Your task to perform on an android device: turn off priority inbox in the gmail app Image 0: 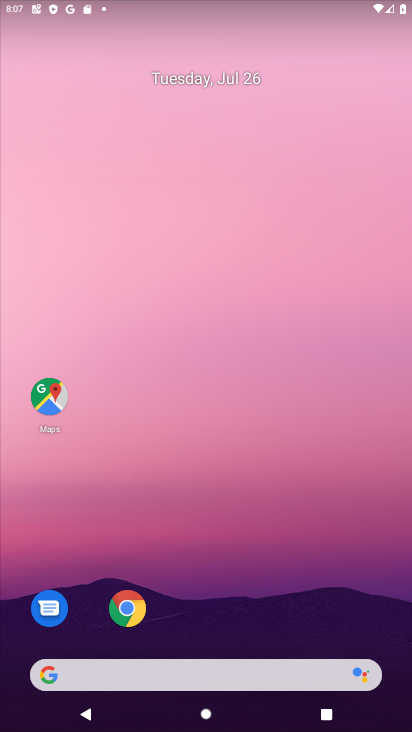
Step 0: click (262, 127)
Your task to perform on an android device: turn off priority inbox in the gmail app Image 1: 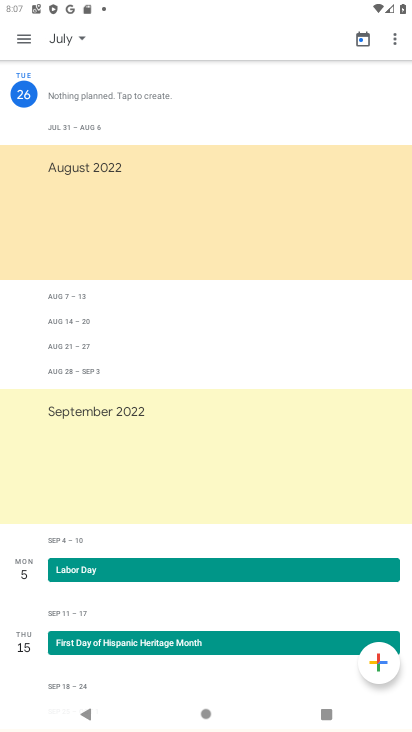
Step 1: press back button
Your task to perform on an android device: turn off priority inbox in the gmail app Image 2: 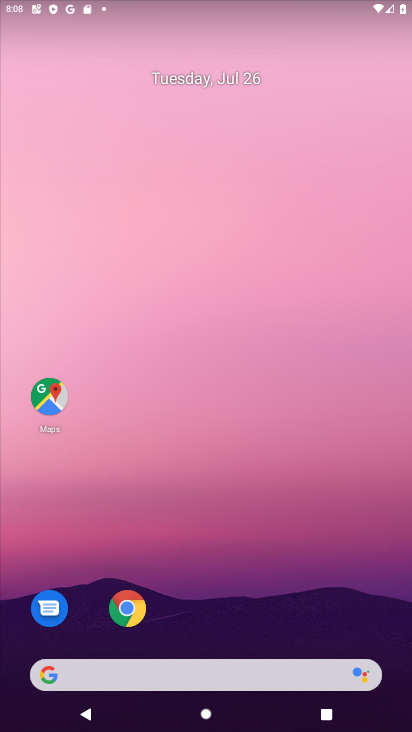
Step 2: drag from (238, 692) to (245, 203)
Your task to perform on an android device: turn off priority inbox in the gmail app Image 3: 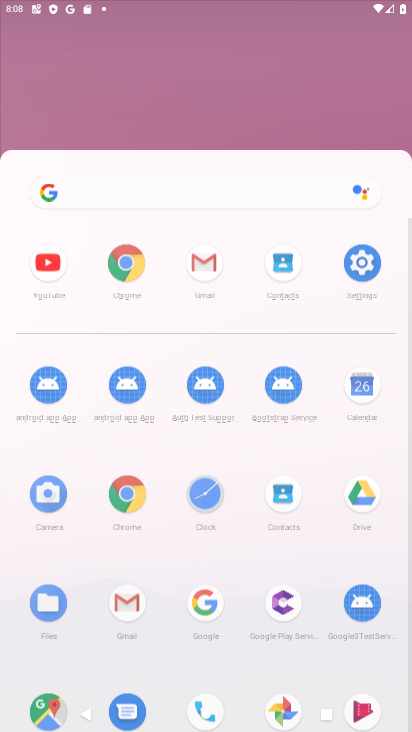
Step 3: drag from (289, 565) to (266, 410)
Your task to perform on an android device: turn off priority inbox in the gmail app Image 4: 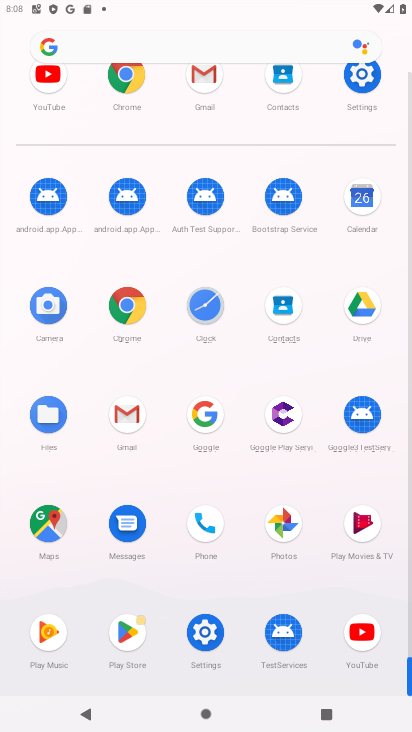
Step 4: click (126, 417)
Your task to perform on an android device: turn off priority inbox in the gmail app Image 5: 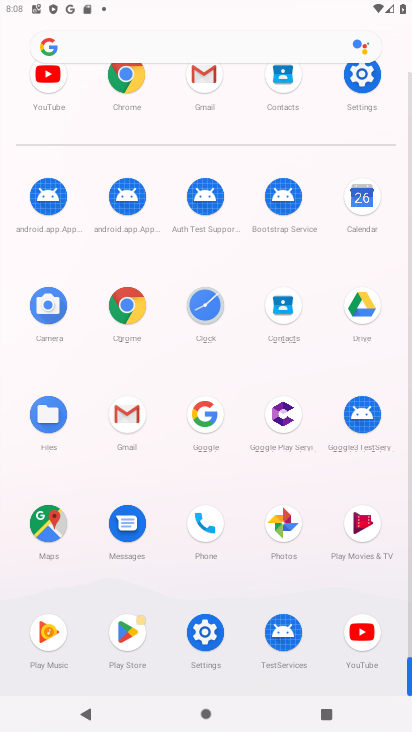
Step 5: click (125, 414)
Your task to perform on an android device: turn off priority inbox in the gmail app Image 6: 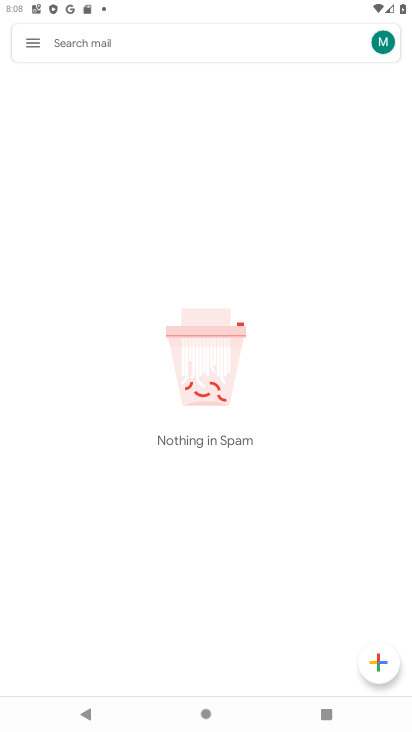
Step 6: click (29, 39)
Your task to perform on an android device: turn off priority inbox in the gmail app Image 7: 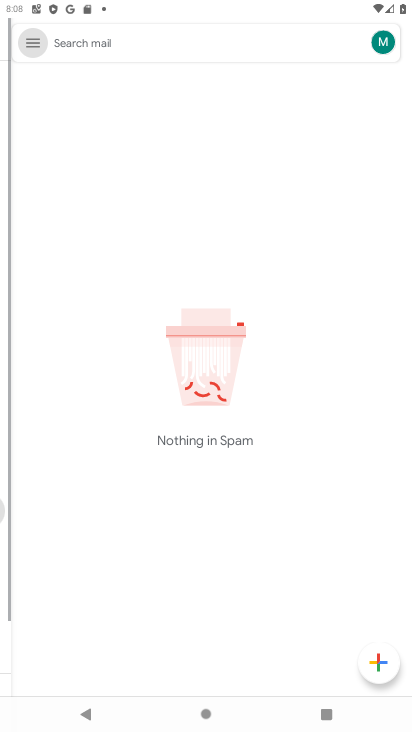
Step 7: click (33, 41)
Your task to perform on an android device: turn off priority inbox in the gmail app Image 8: 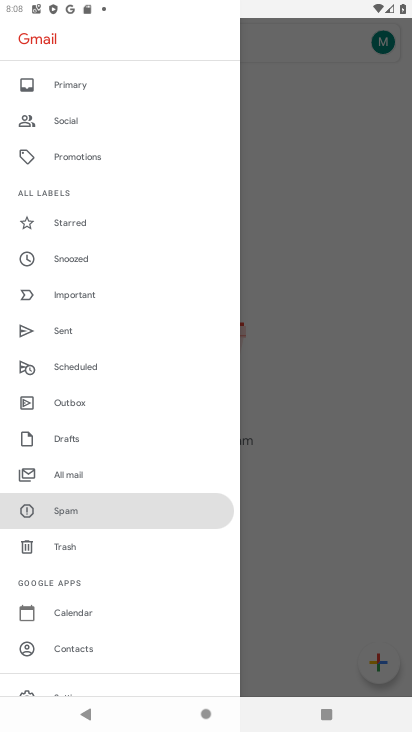
Step 8: click (76, 470)
Your task to perform on an android device: turn off priority inbox in the gmail app Image 9: 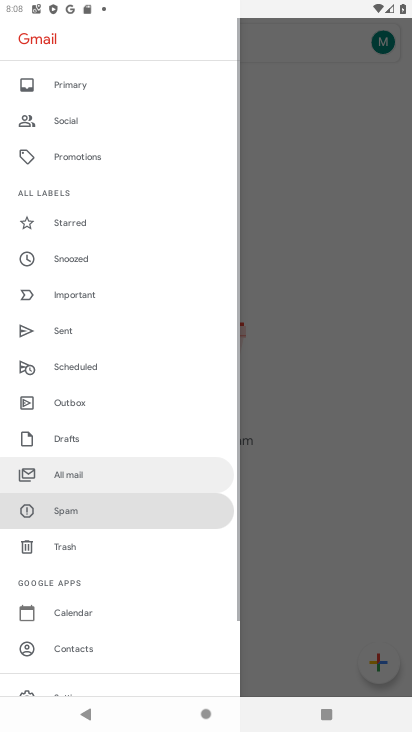
Step 9: click (76, 476)
Your task to perform on an android device: turn off priority inbox in the gmail app Image 10: 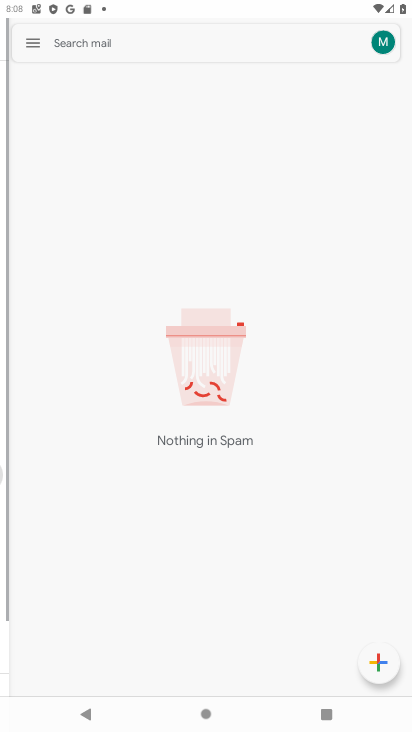
Step 10: click (81, 481)
Your task to perform on an android device: turn off priority inbox in the gmail app Image 11: 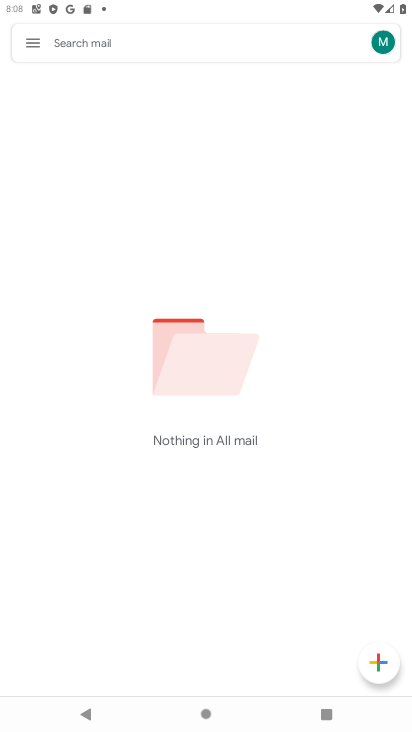
Step 11: click (34, 48)
Your task to perform on an android device: turn off priority inbox in the gmail app Image 12: 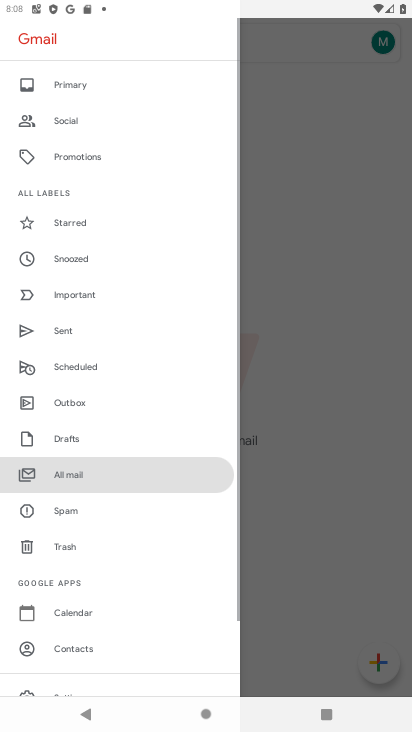
Step 12: drag from (88, 619) to (69, 234)
Your task to perform on an android device: turn off priority inbox in the gmail app Image 13: 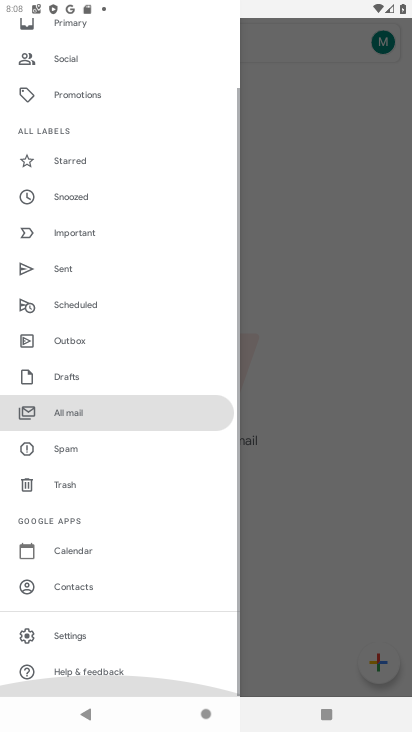
Step 13: drag from (116, 557) to (95, 376)
Your task to perform on an android device: turn off priority inbox in the gmail app Image 14: 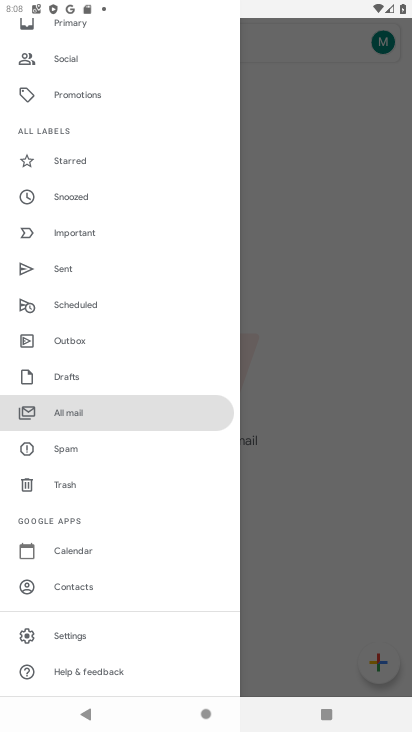
Step 14: drag from (89, 551) to (49, 219)
Your task to perform on an android device: turn off priority inbox in the gmail app Image 15: 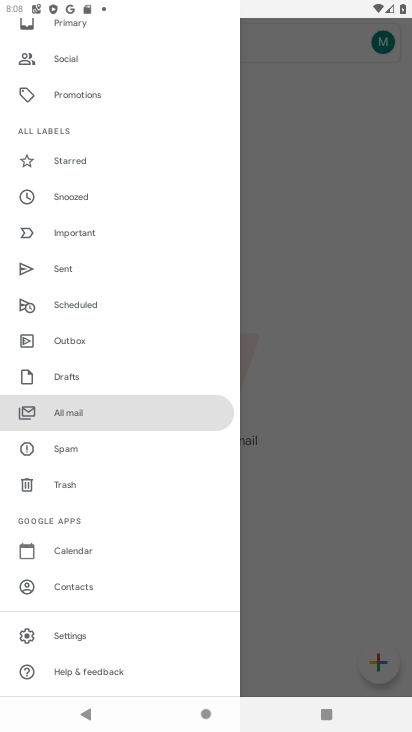
Step 15: click (68, 635)
Your task to perform on an android device: turn off priority inbox in the gmail app Image 16: 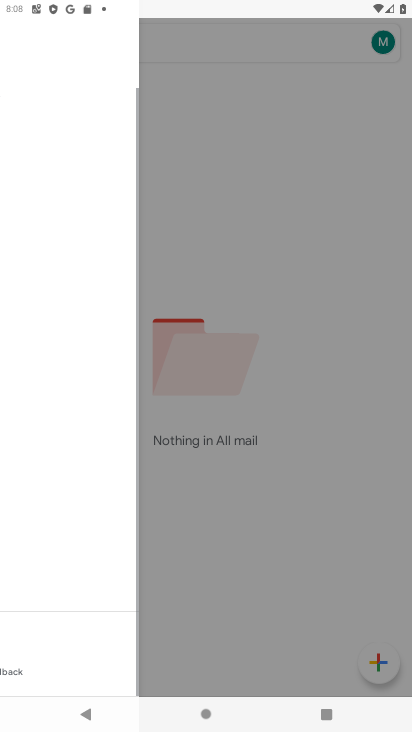
Step 16: click (68, 635)
Your task to perform on an android device: turn off priority inbox in the gmail app Image 17: 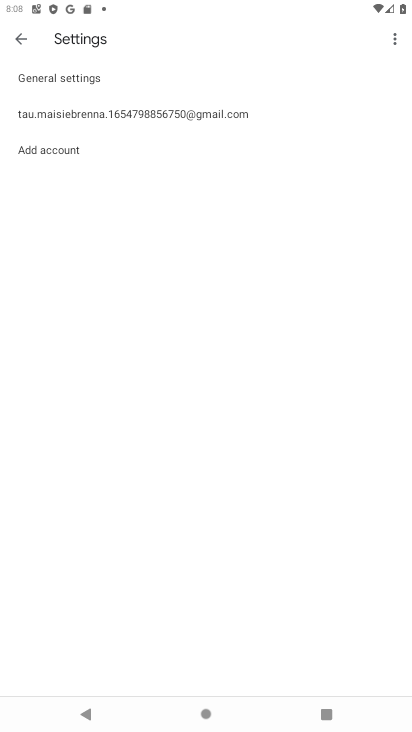
Step 17: click (74, 103)
Your task to perform on an android device: turn off priority inbox in the gmail app Image 18: 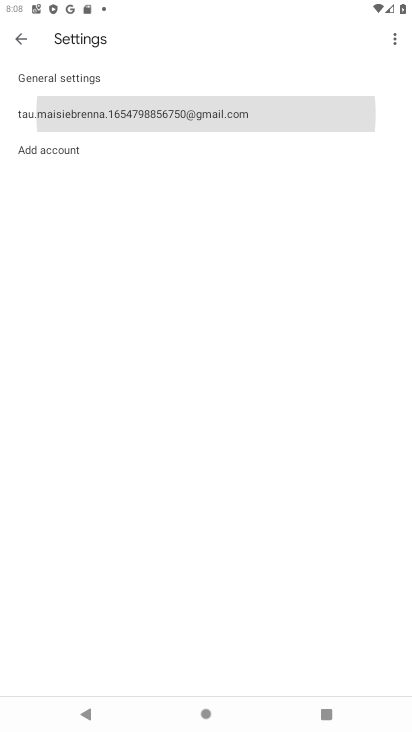
Step 18: click (73, 108)
Your task to perform on an android device: turn off priority inbox in the gmail app Image 19: 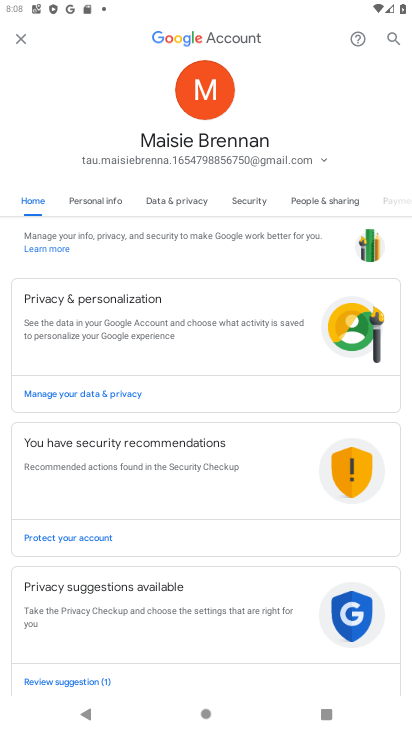
Step 19: click (10, 37)
Your task to perform on an android device: turn off priority inbox in the gmail app Image 20: 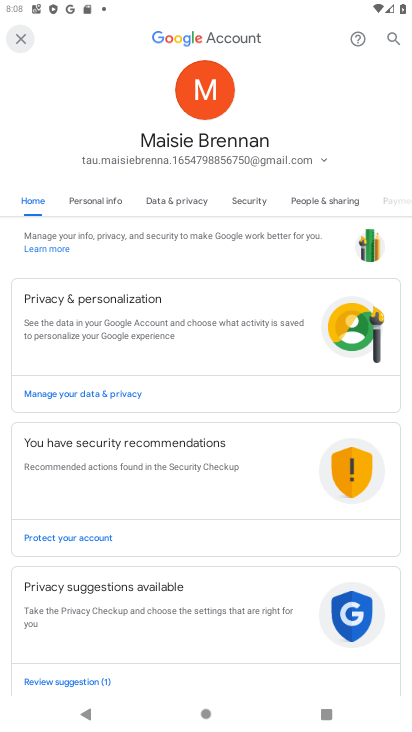
Step 20: click (10, 37)
Your task to perform on an android device: turn off priority inbox in the gmail app Image 21: 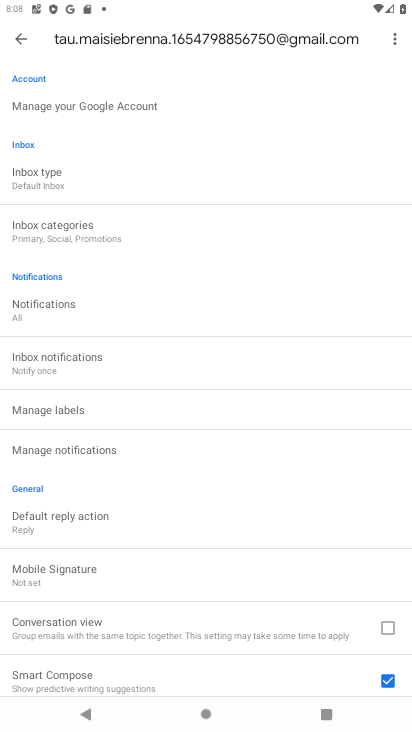
Step 21: click (40, 176)
Your task to perform on an android device: turn off priority inbox in the gmail app Image 22: 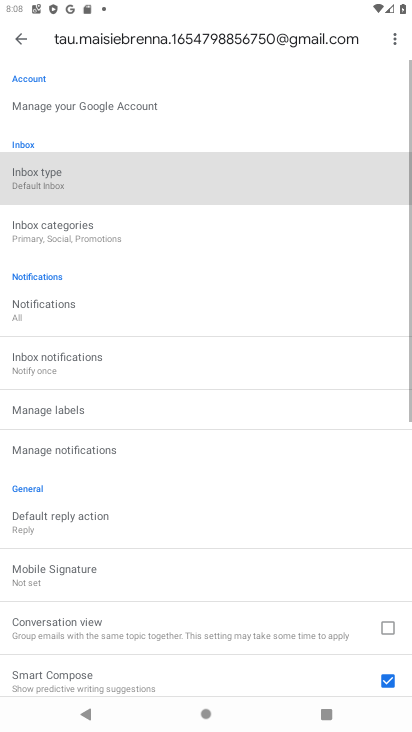
Step 22: click (41, 177)
Your task to perform on an android device: turn off priority inbox in the gmail app Image 23: 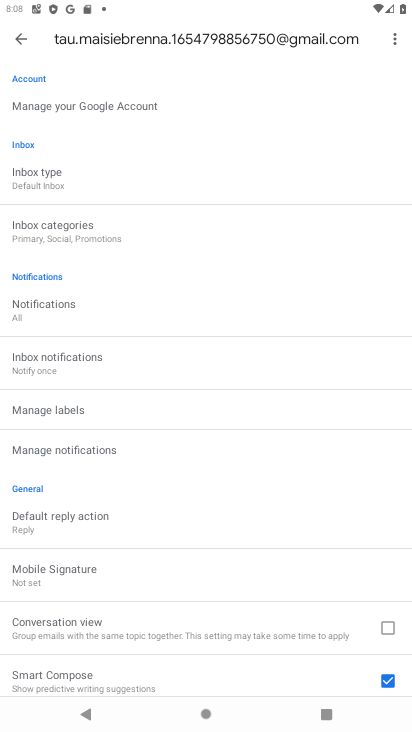
Step 23: task complete